Your task to perform on an android device: set default search engine in the chrome app Image 0: 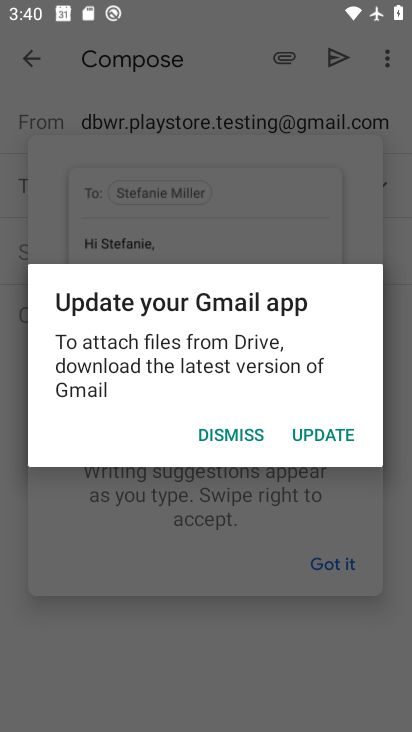
Step 0: press home button
Your task to perform on an android device: set default search engine in the chrome app Image 1: 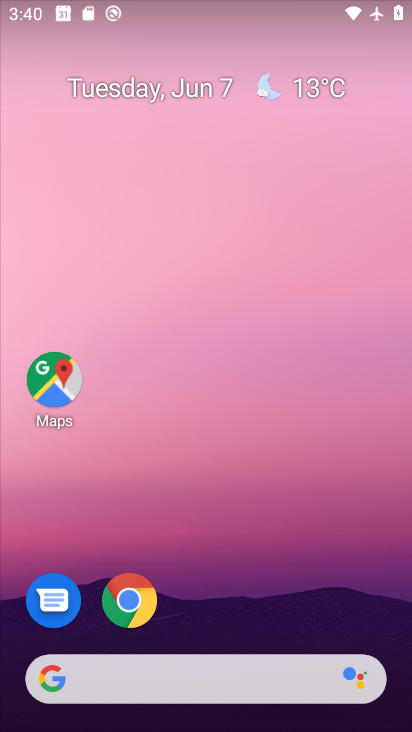
Step 1: click (130, 602)
Your task to perform on an android device: set default search engine in the chrome app Image 2: 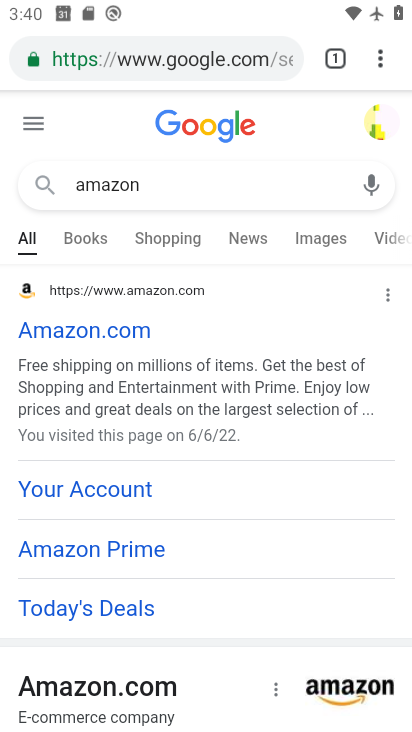
Step 2: drag from (379, 55) to (210, 639)
Your task to perform on an android device: set default search engine in the chrome app Image 3: 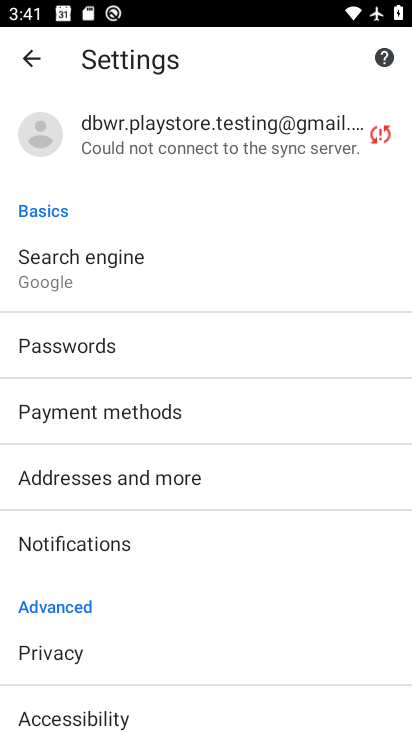
Step 3: click (93, 262)
Your task to perform on an android device: set default search engine in the chrome app Image 4: 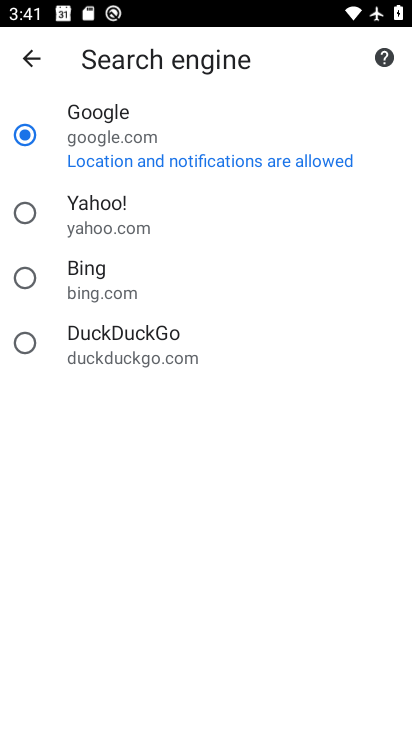
Step 4: task complete